Your task to perform on an android device: Open accessibility settings Image 0: 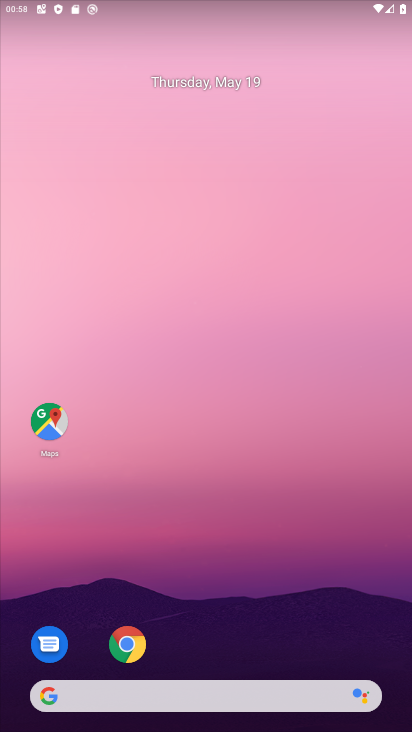
Step 0: drag from (252, 579) to (287, 86)
Your task to perform on an android device: Open accessibility settings Image 1: 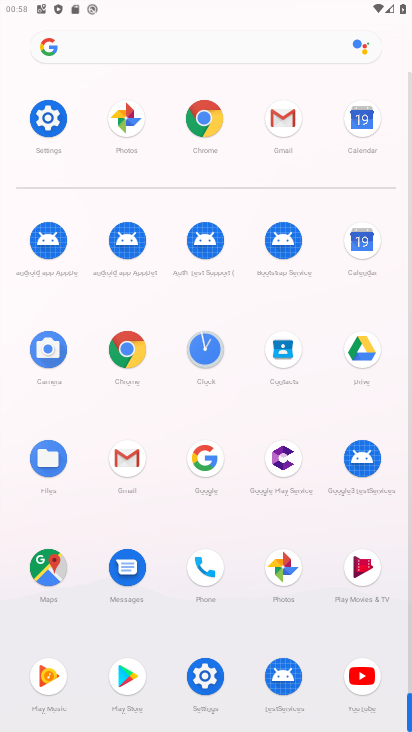
Step 1: click (194, 690)
Your task to perform on an android device: Open accessibility settings Image 2: 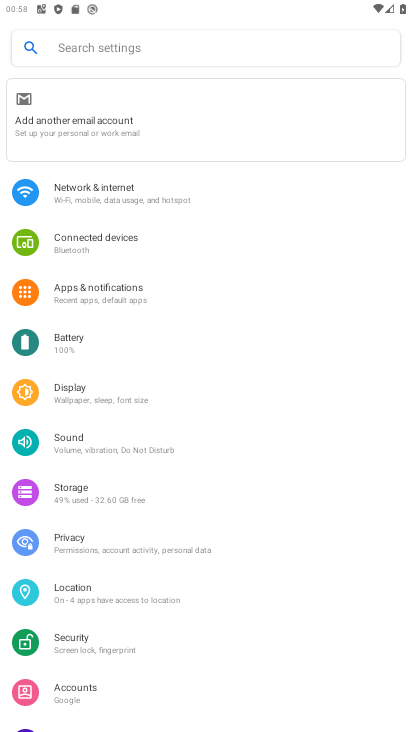
Step 2: drag from (223, 677) to (286, 442)
Your task to perform on an android device: Open accessibility settings Image 3: 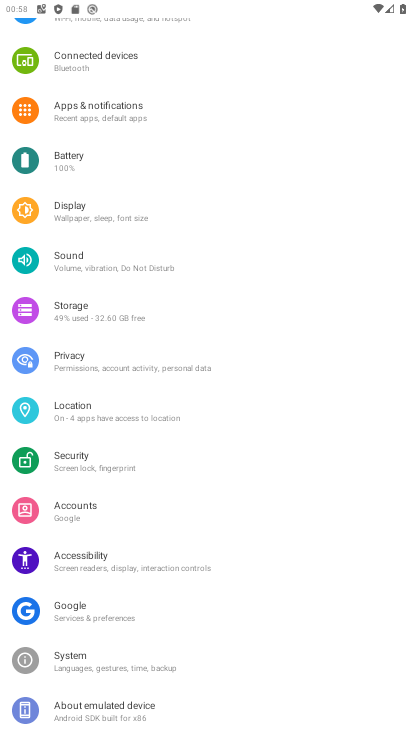
Step 3: click (138, 550)
Your task to perform on an android device: Open accessibility settings Image 4: 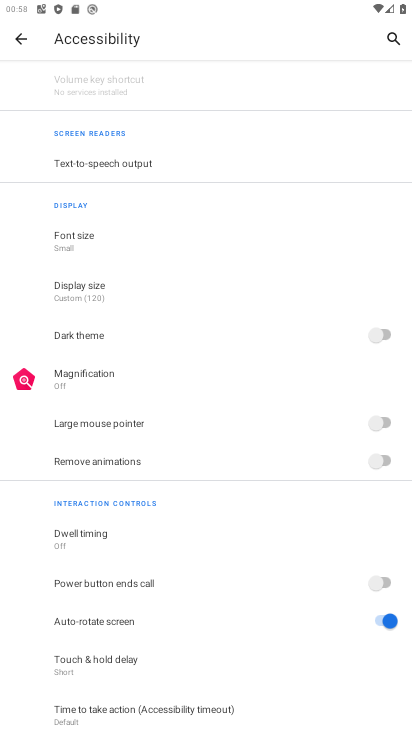
Step 4: task complete